Your task to perform on an android device: Open wifi settings Image 0: 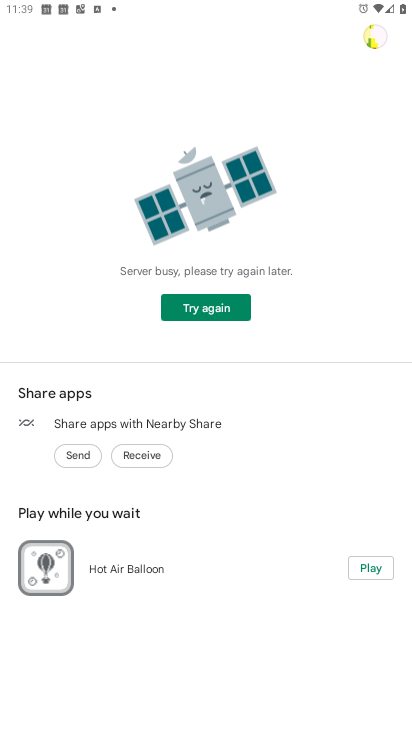
Step 0: press home button
Your task to perform on an android device: Open wifi settings Image 1: 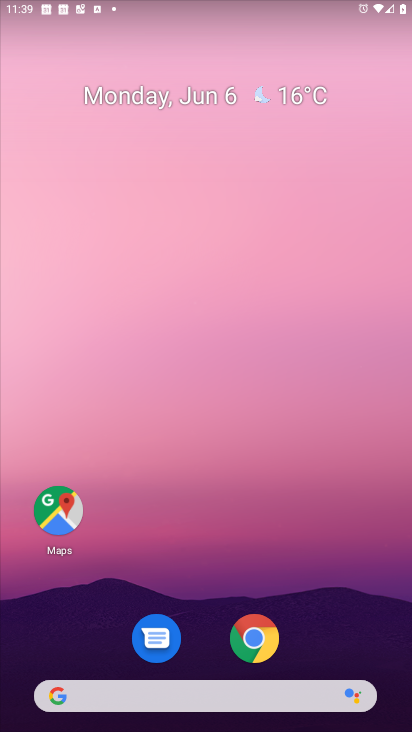
Step 1: drag from (244, 686) to (283, 137)
Your task to perform on an android device: Open wifi settings Image 2: 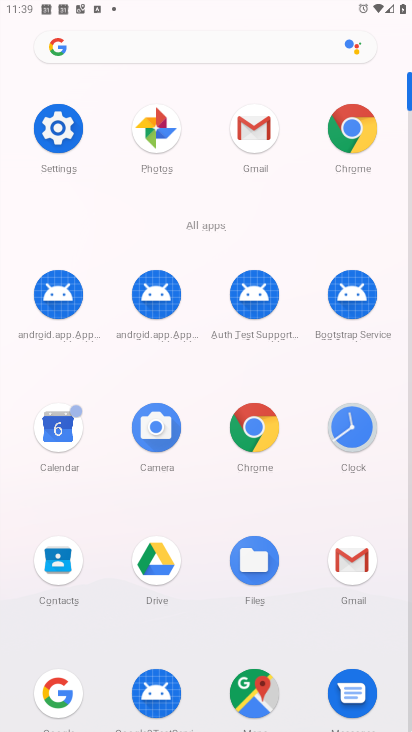
Step 2: click (50, 140)
Your task to perform on an android device: Open wifi settings Image 3: 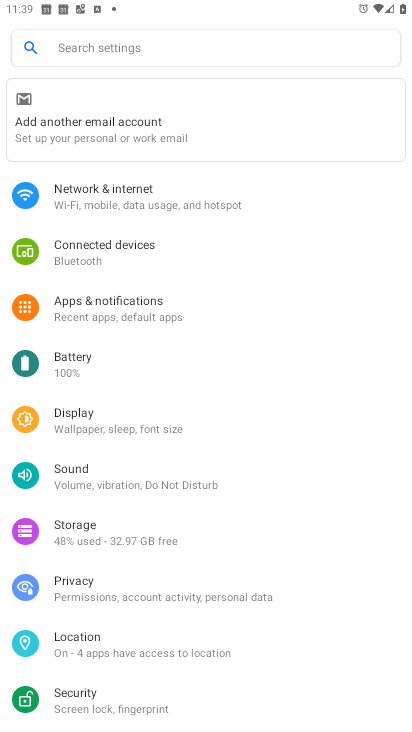
Step 3: click (109, 202)
Your task to perform on an android device: Open wifi settings Image 4: 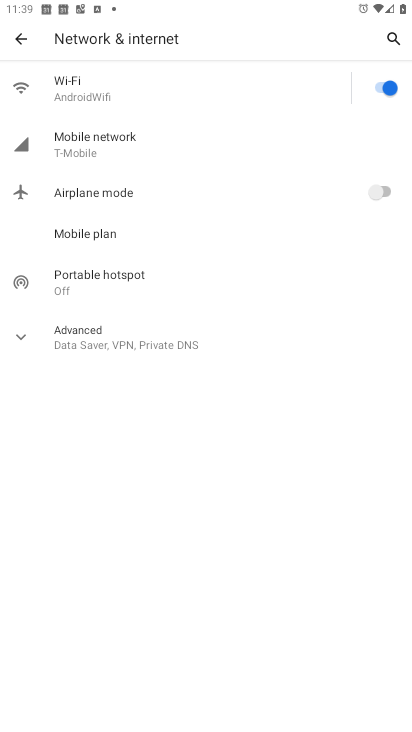
Step 4: click (124, 85)
Your task to perform on an android device: Open wifi settings Image 5: 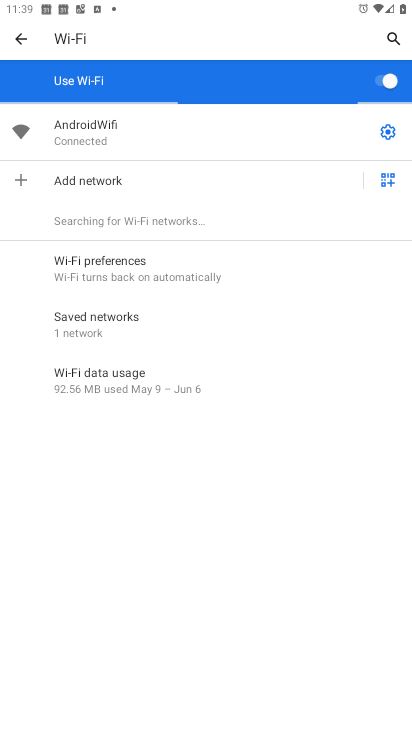
Step 5: task complete